Your task to perform on an android device: open app "DoorDash - Food Delivery" (install if not already installed) and go to login screen Image 0: 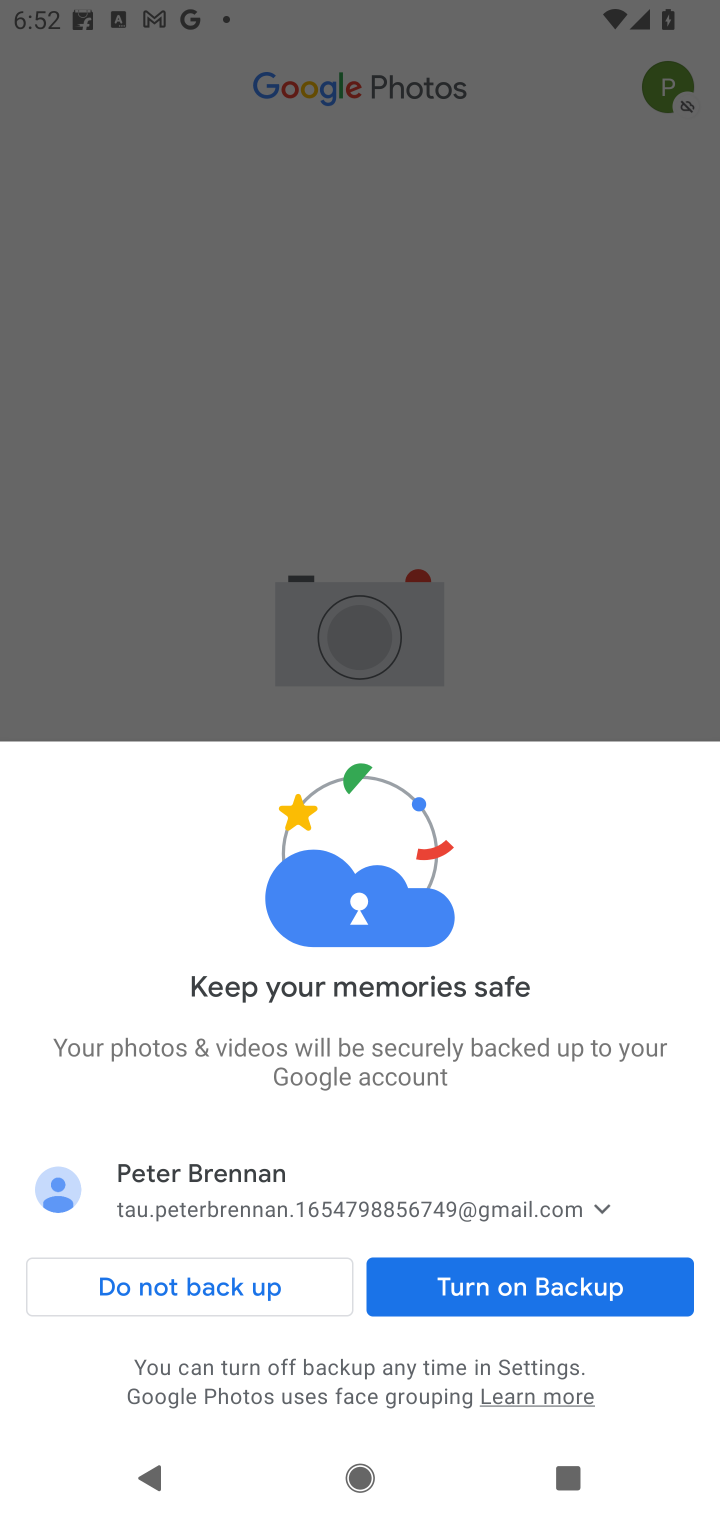
Step 0: press home button
Your task to perform on an android device: open app "DoorDash - Food Delivery" (install if not already installed) and go to login screen Image 1: 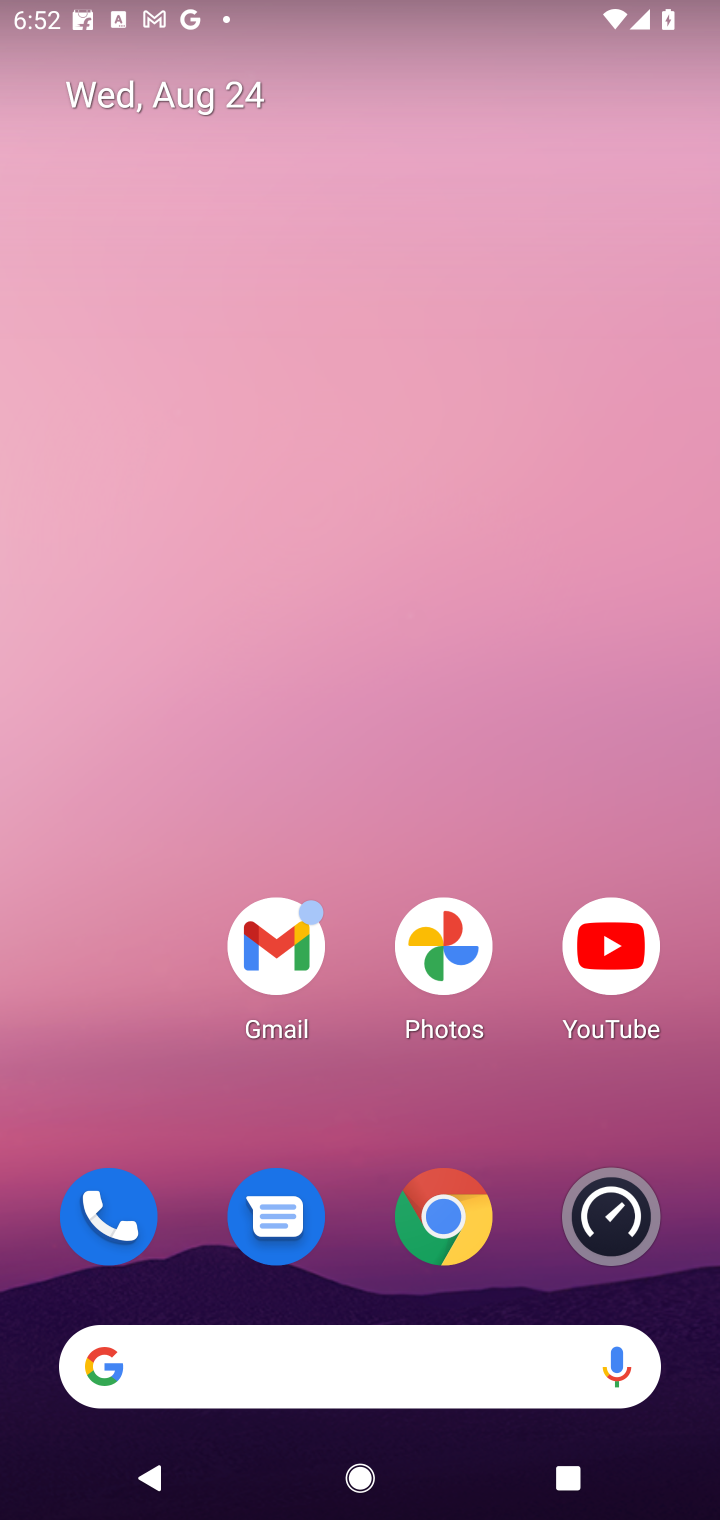
Step 1: drag from (317, 577) to (307, 276)
Your task to perform on an android device: open app "DoorDash - Food Delivery" (install if not already installed) and go to login screen Image 2: 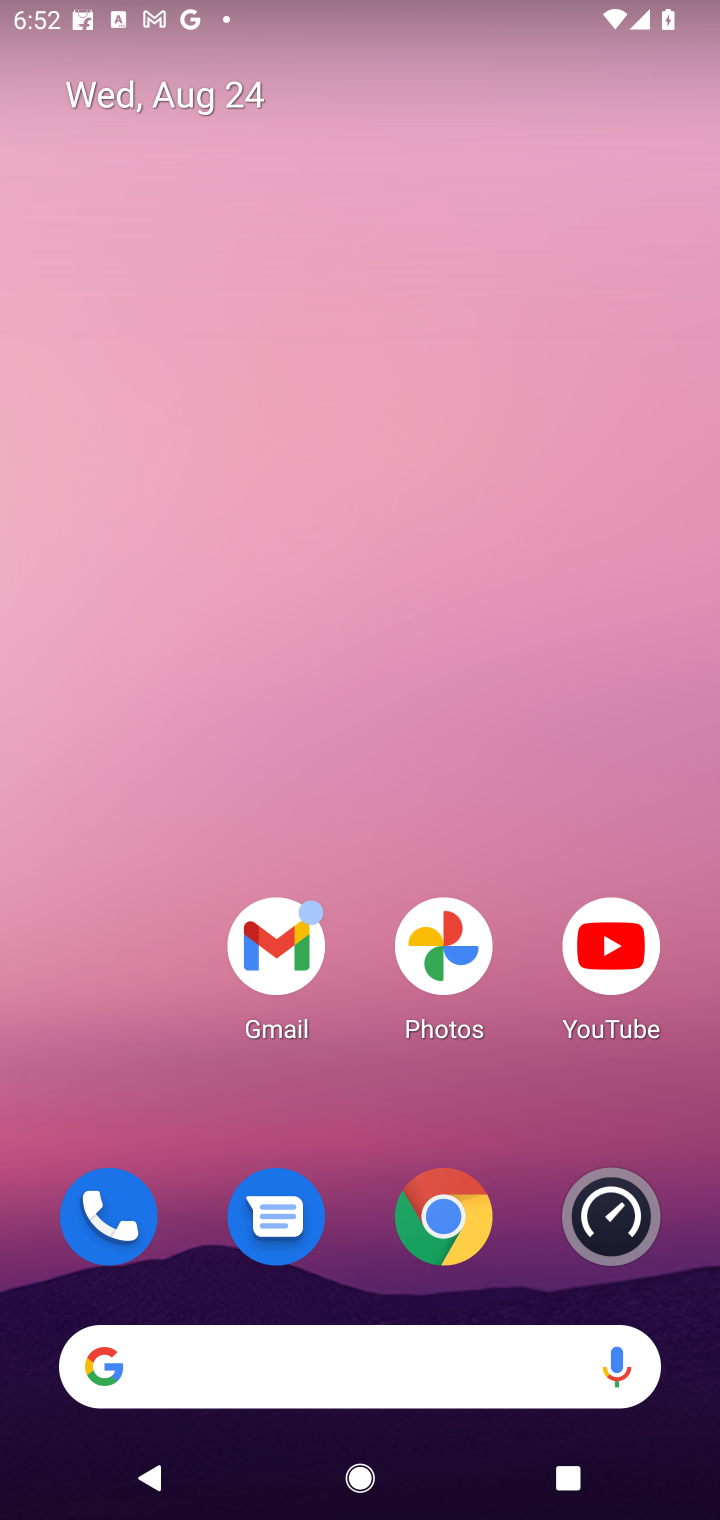
Step 2: drag from (349, 933) to (349, 276)
Your task to perform on an android device: open app "DoorDash - Food Delivery" (install if not already installed) and go to login screen Image 3: 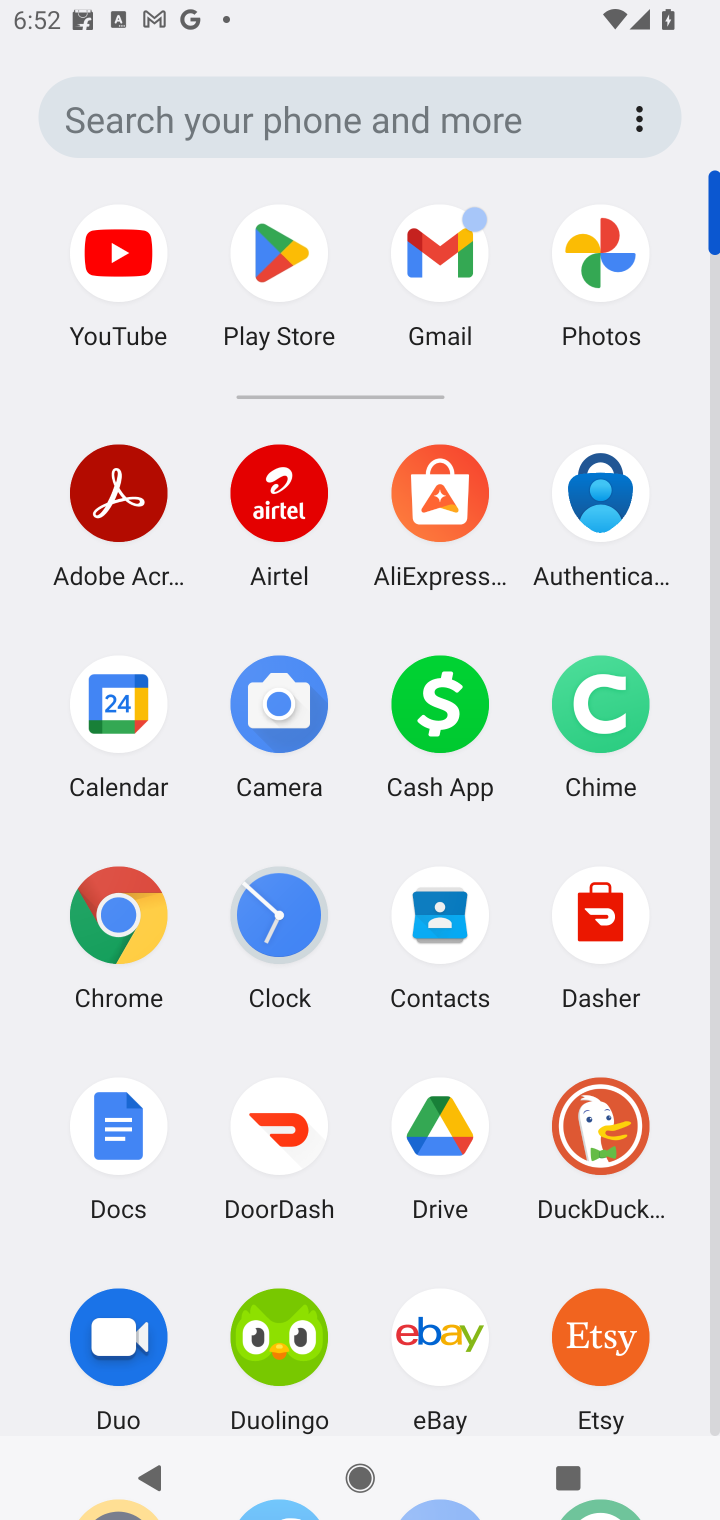
Step 3: click (296, 260)
Your task to perform on an android device: open app "DoorDash - Food Delivery" (install if not already installed) and go to login screen Image 4: 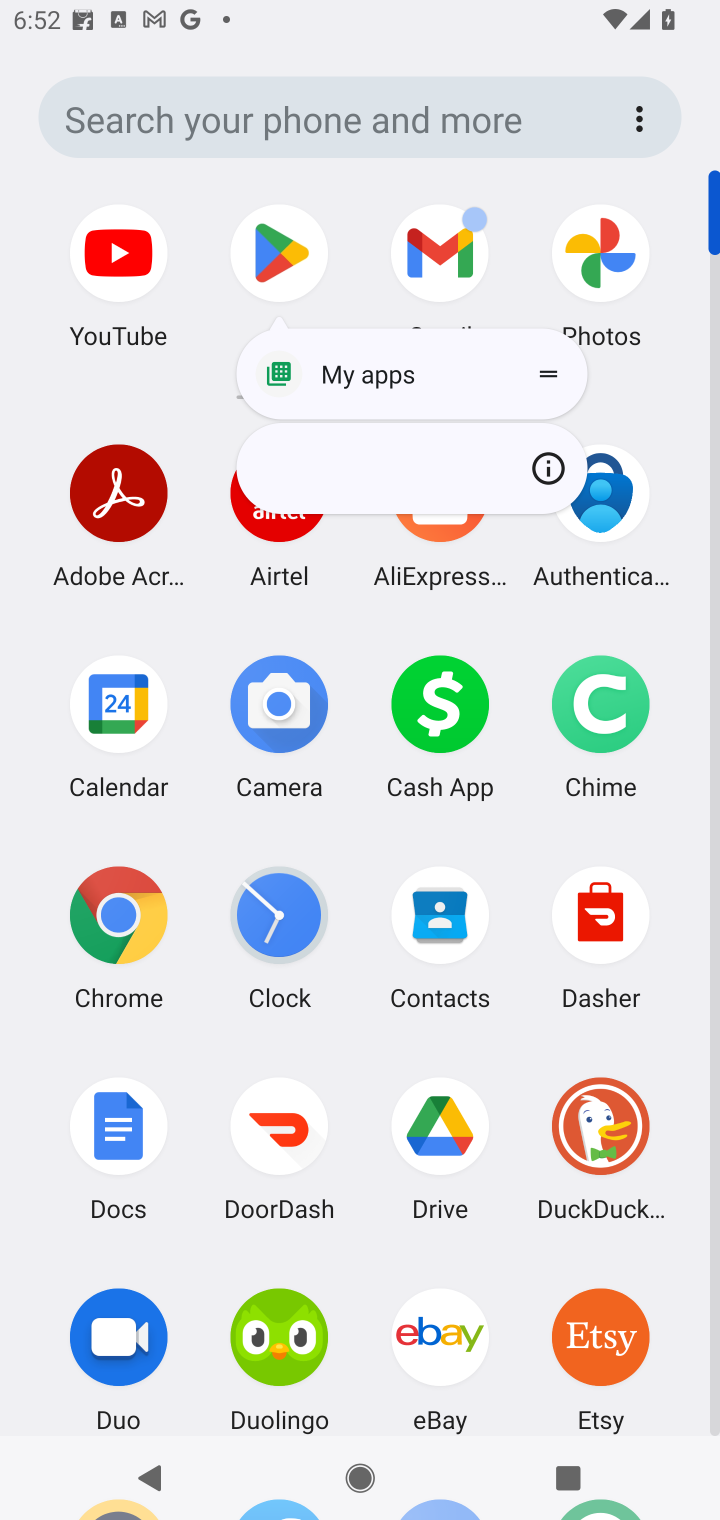
Step 4: click (257, 253)
Your task to perform on an android device: open app "DoorDash - Food Delivery" (install if not already installed) and go to login screen Image 5: 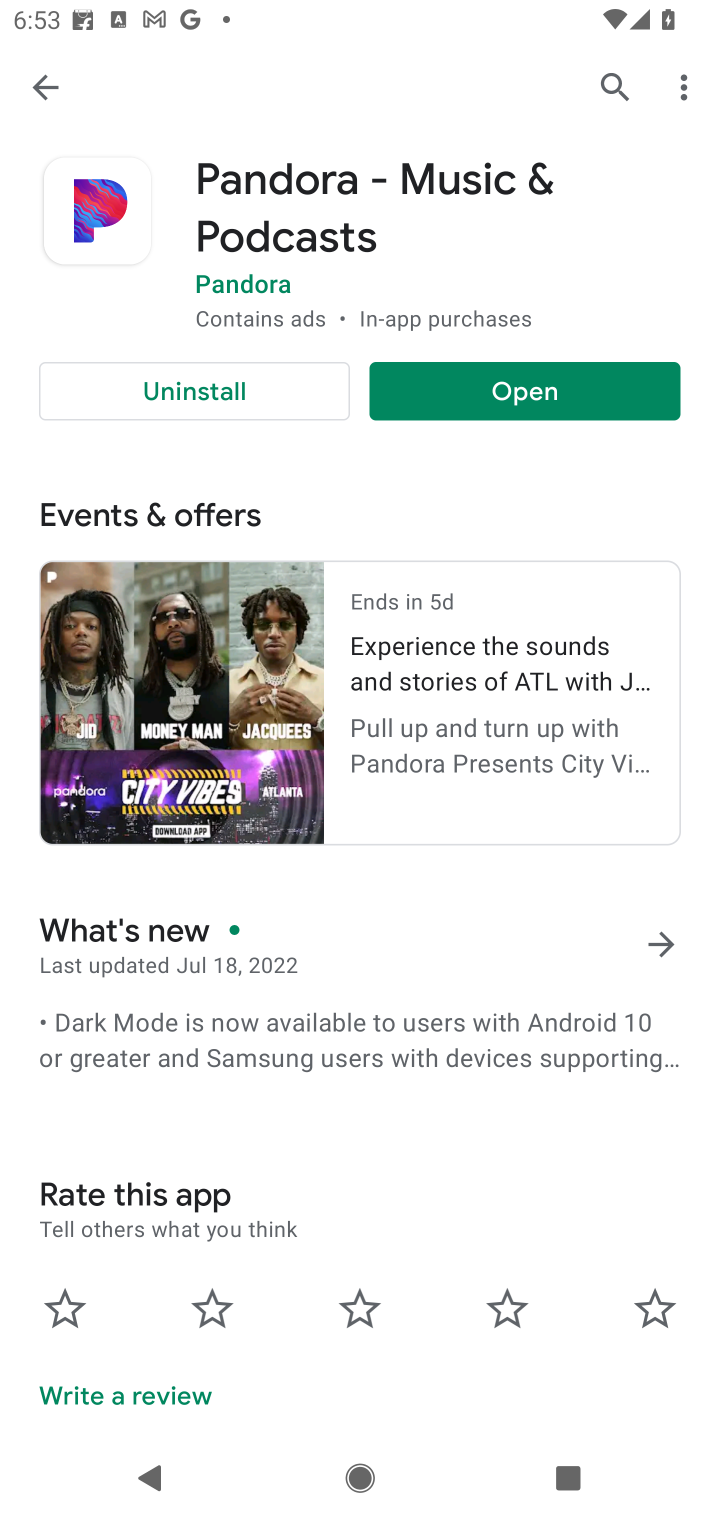
Step 5: click (604, 87)
Your task to perform on an android device: open app "DoorDash - Food Delivery" (install if not already installed) and go to login screen Image 6: 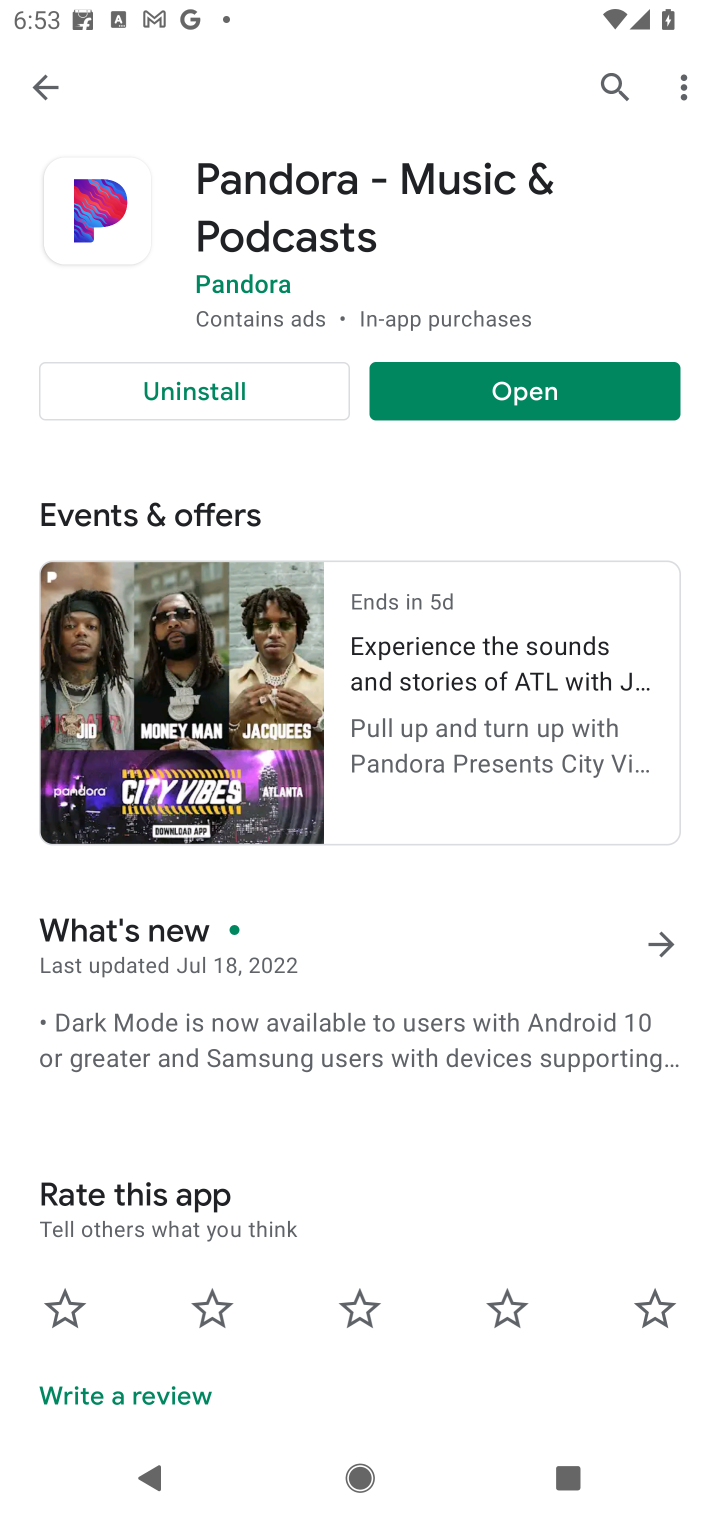
Step 6: click (612, 96)
Your task to perform on an android device: open app "DoorDash - Food Delivery" (install if not already installed) and go to login screen Image 7: 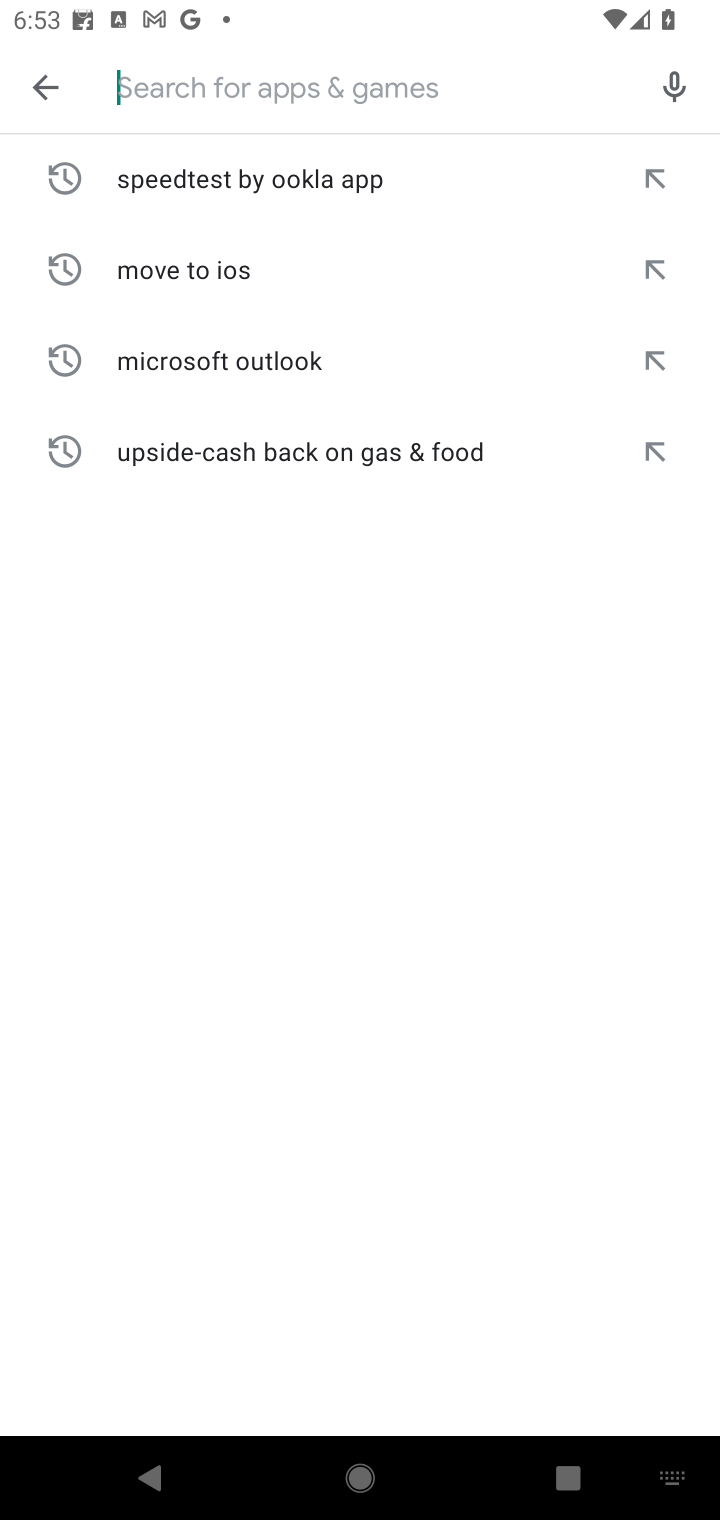
Step 7: type "DoorDash - Food Delivery"
Your task to perform on an android device: open app "DoorDash - Food Delivery" (install if not already installed) and go to login screen Image 8: 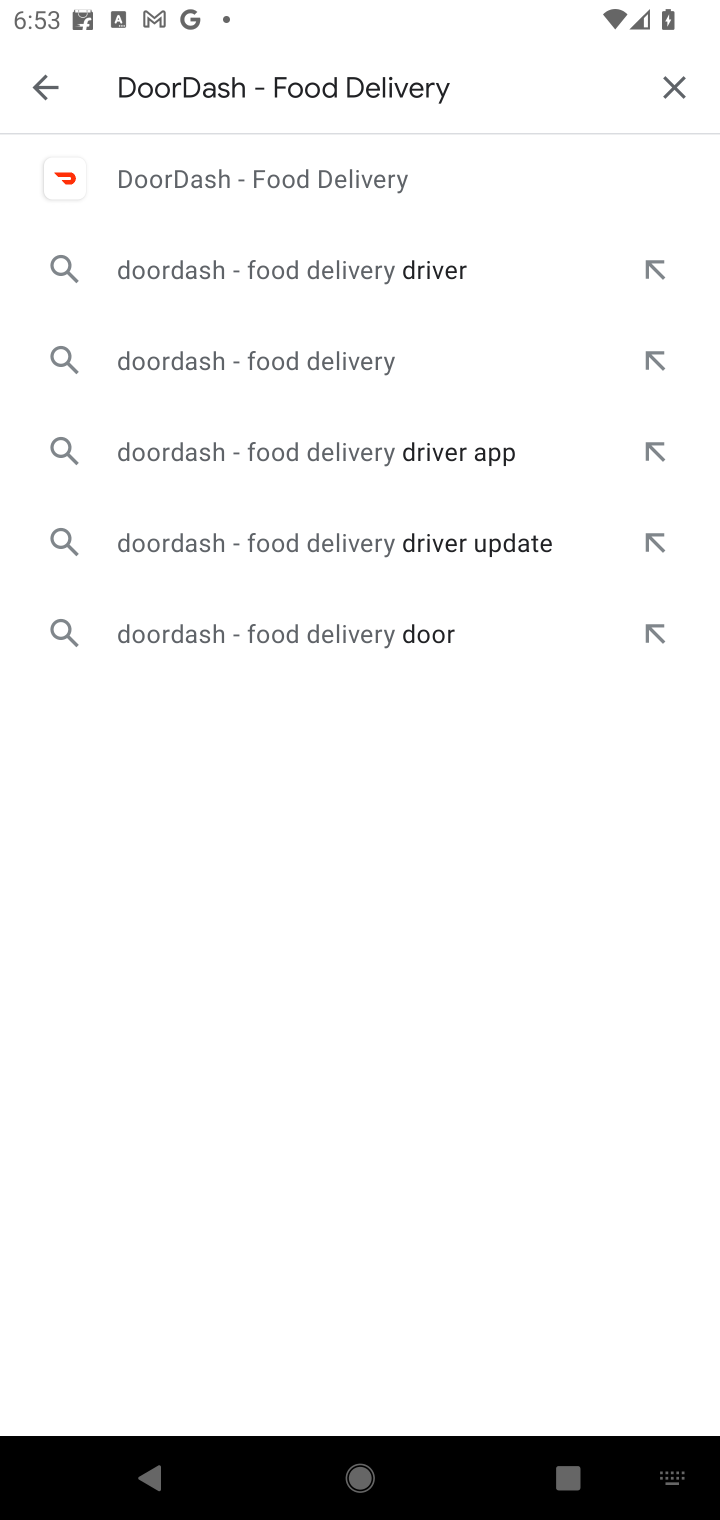
Step 8: click (352, 182)
Your task to perform on an android device: open app "DoorDash - Food Delivery" (install if not already installed) and go to login screen Image 9: 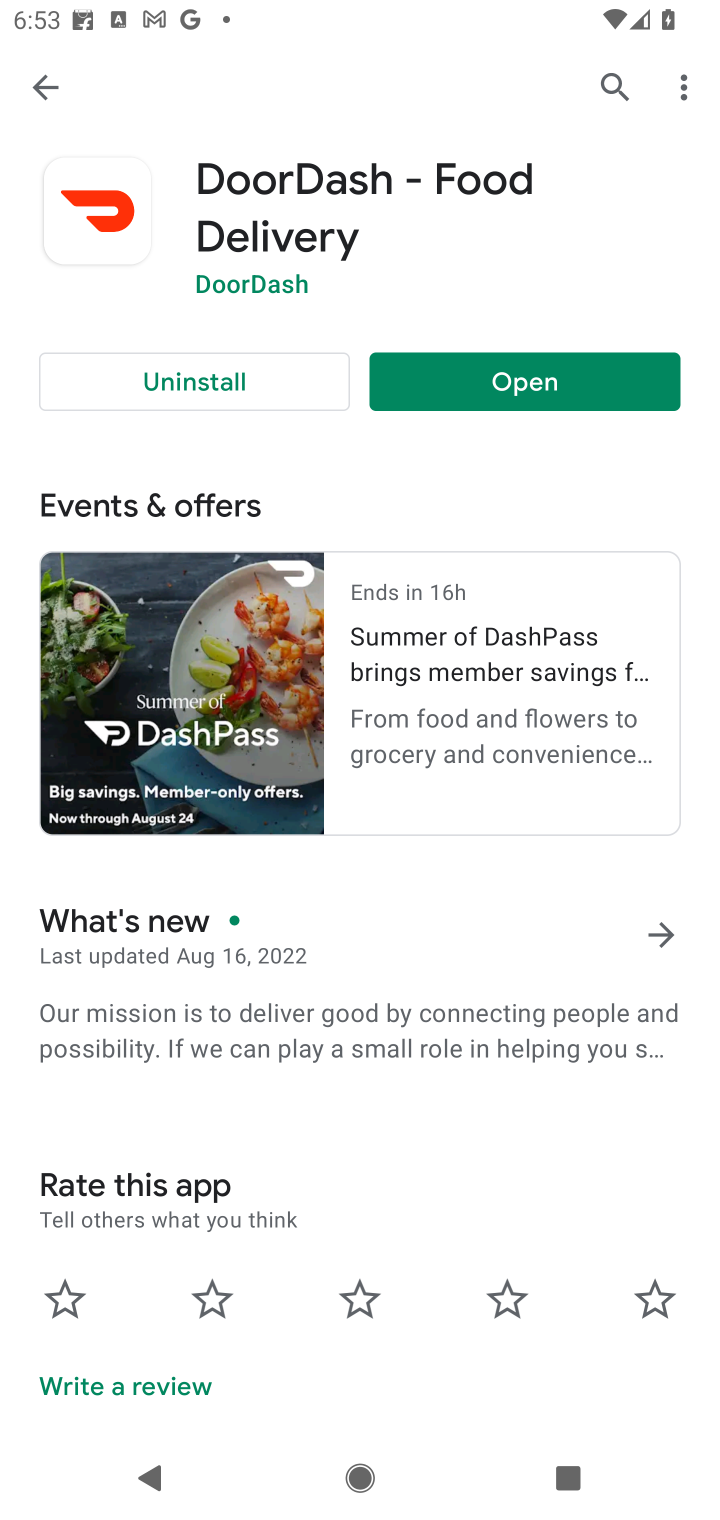
Step 9: click (475, 390)
Your task to perform on an android device: open app "DoorDash - Food Delivery" (install if not already installed) and go to login screen Image 10: 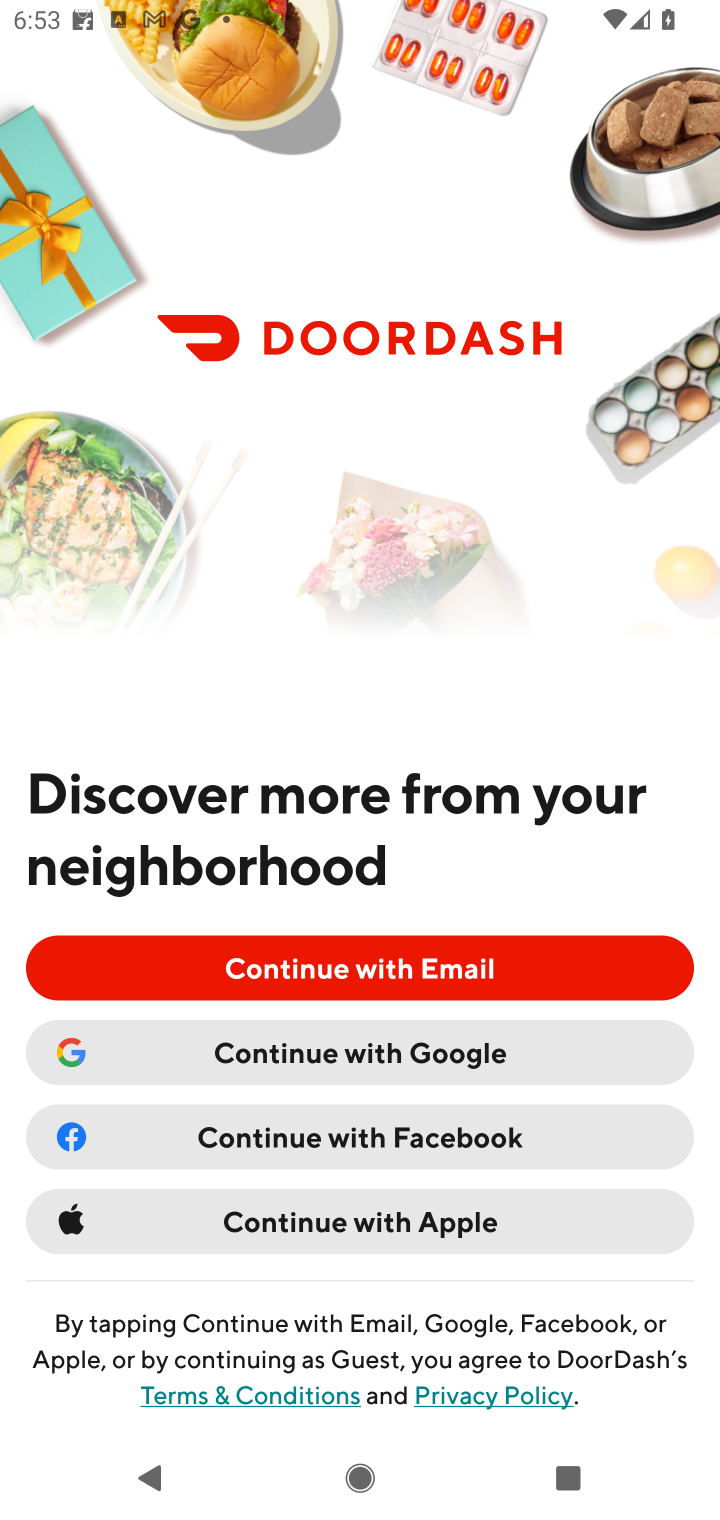
Step 10: task complete